Your task to perform on an android device: open the mobile data screen to see how much data has been used Image 0: 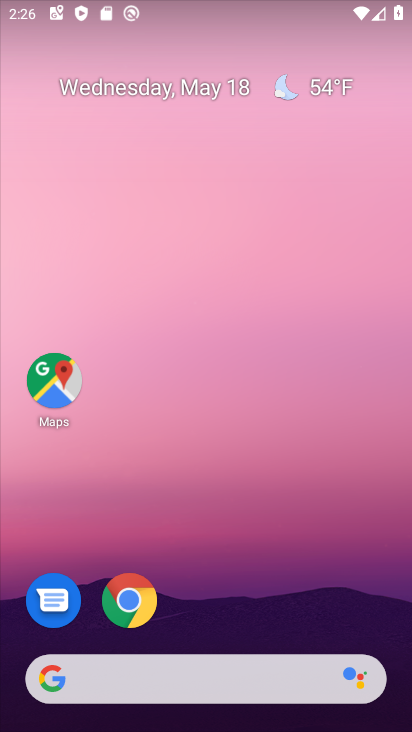
Step 0: drag from (167, 19) to (29, 681)
Your task to perform on an android device: open the mobile data screen to see how much data has been used Image 1: 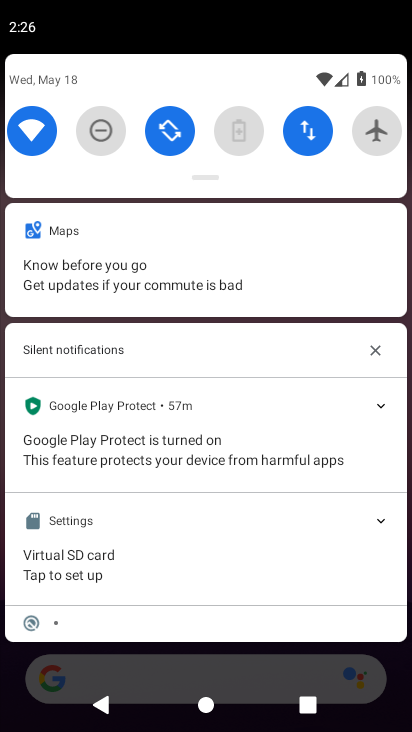
Step 1: click (317, 140)
Your task to perform on an android device: open the mobile data screen to see how much data has been used Image 2: 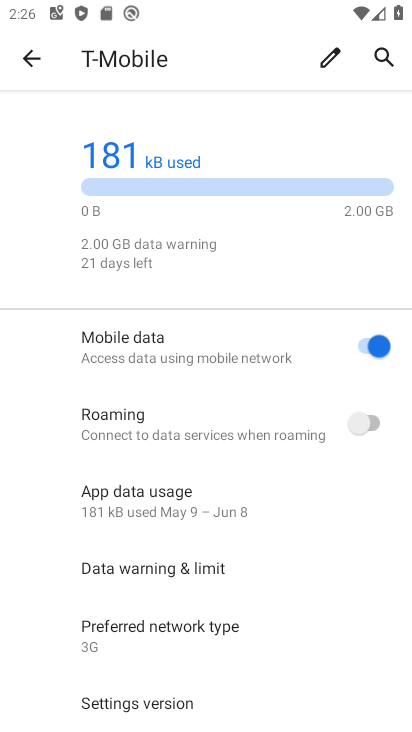
Step 2: task complete